Your task to perform on an android device: uninstall "Adobe Acrobat Reader" Image 0: 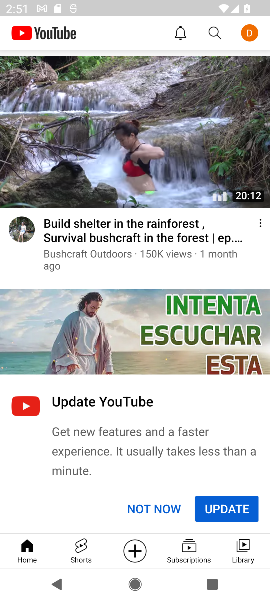
Step 0: press home button
Your task to perform on an android device: uninstall "Adobe Acrobat Reader" Image 1: 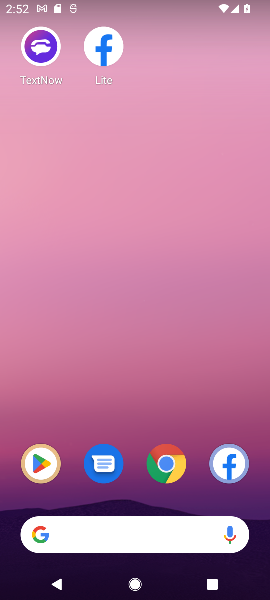
Step 1: drag from (110, 531) to (128, 129)
Your task to perform on an android device: uninstall "Adobe Acrobat Reader" Image 2: 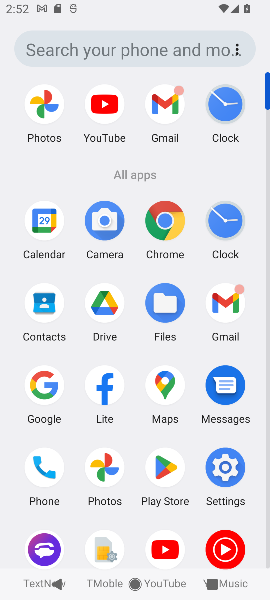
Step 2: click (166, 469)
Your task to perform on an android device: uninstall "Adobe Acrobat Reader" Image 3: 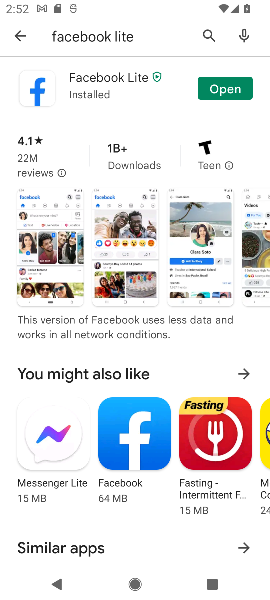
Step 3: click (206, 33)
Your task to perform on an android device: uninstall "Adobe Acrobat Reader" Image 4: 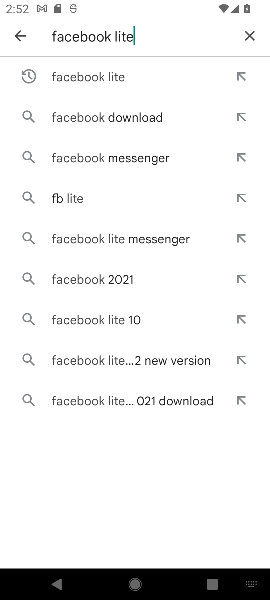
Step 4: click (249, 36)
Your task to perform on an android device: uninstall "Adobe Acrobat Reader" Image 5: 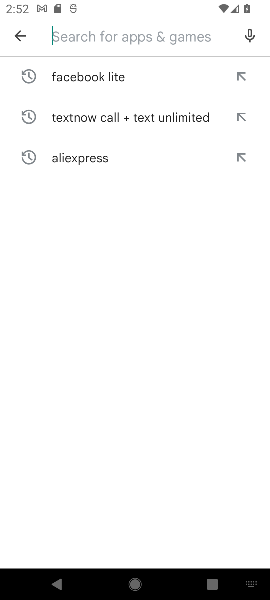
Step 5: click (115, 32)
Your task to perform on an android device: uninstall "Adobe Acrobat Reader" Image 6: 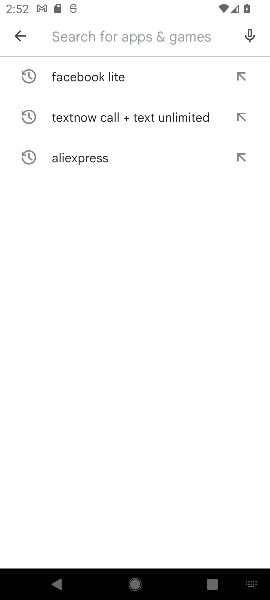
Step 6: type "Adobe Acrobat Reader"
Your task to perform on an android device: uninstall "Adobe Acrobat Reader" Image 7: 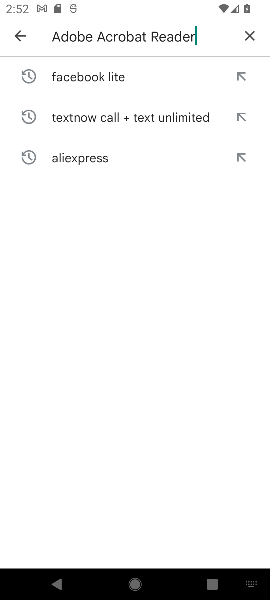
Step 7: type ""
Your task to perform on an android device: uninstall "Adobe Acrobat Reader" Image 8: 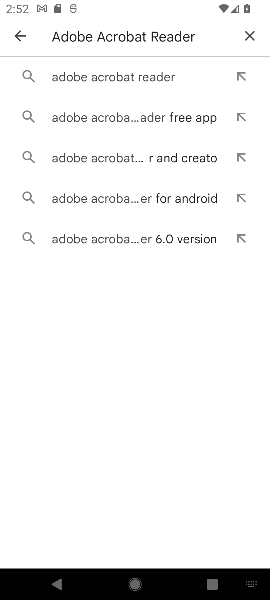
Step 8: click (122, 74)
Your task to perform on an android device: uninstall "Adobe Acrobat Reader" Image 9: 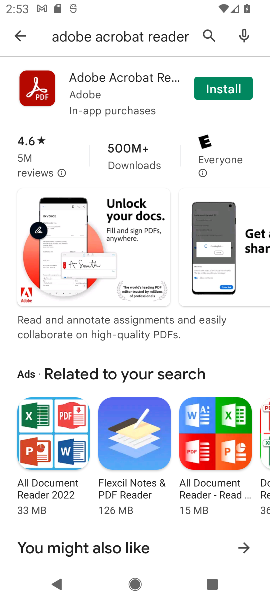
Step 9: task complete